Your task to perform on an android device: add a contact in the contacts app Image 0: 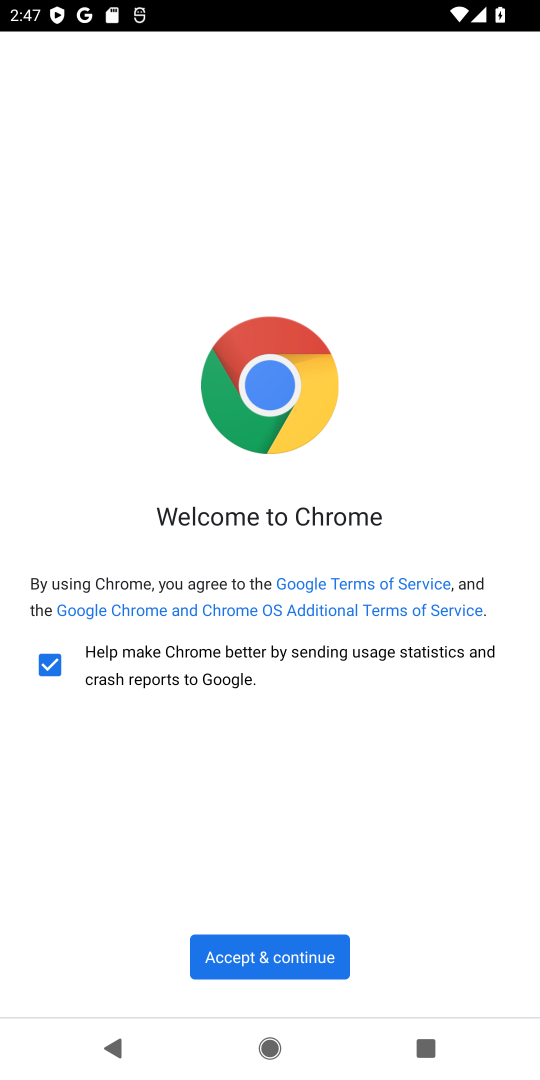
Step 0: press home button
Your task to perform on an android device: add a contact in the contacts app Image 1: 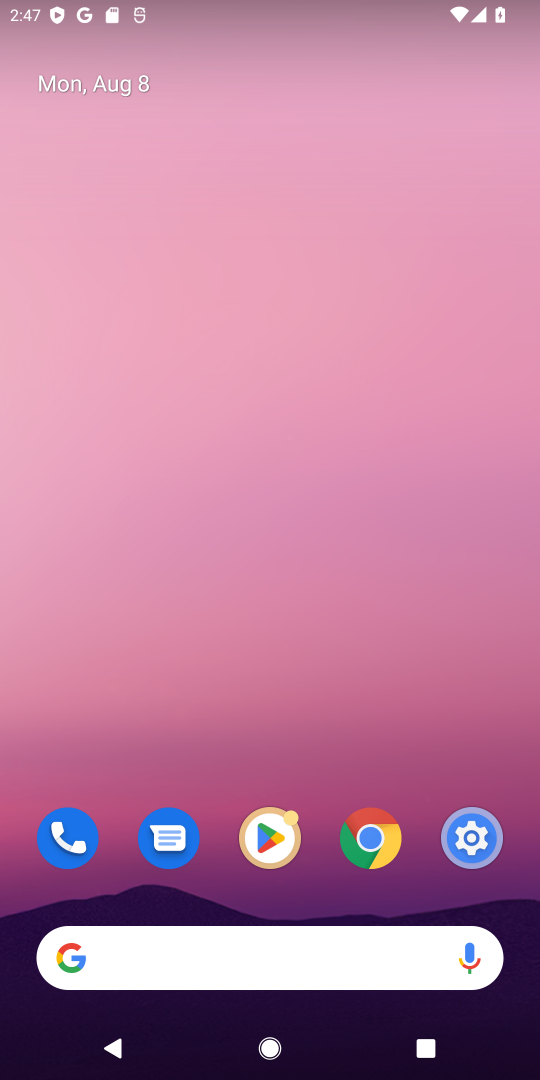
Step 1: drag from (370, 905) to (361, 95)
Your task to perform on an android device: add a contact in the contacts app Image 2: 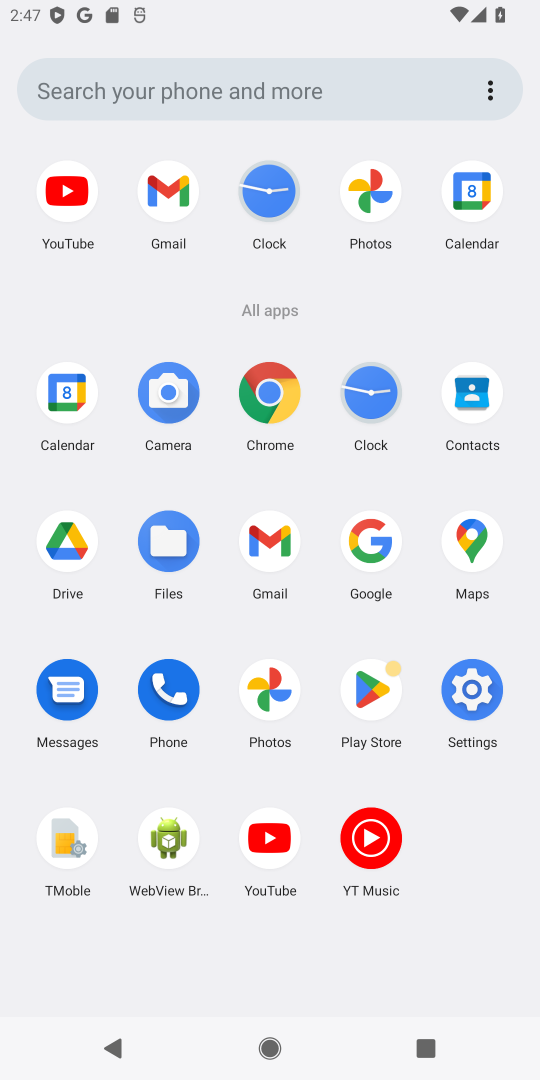
Step 2: click (464, 408)
Your task to perform on an android device: add a contact in the contacts app Image 3: 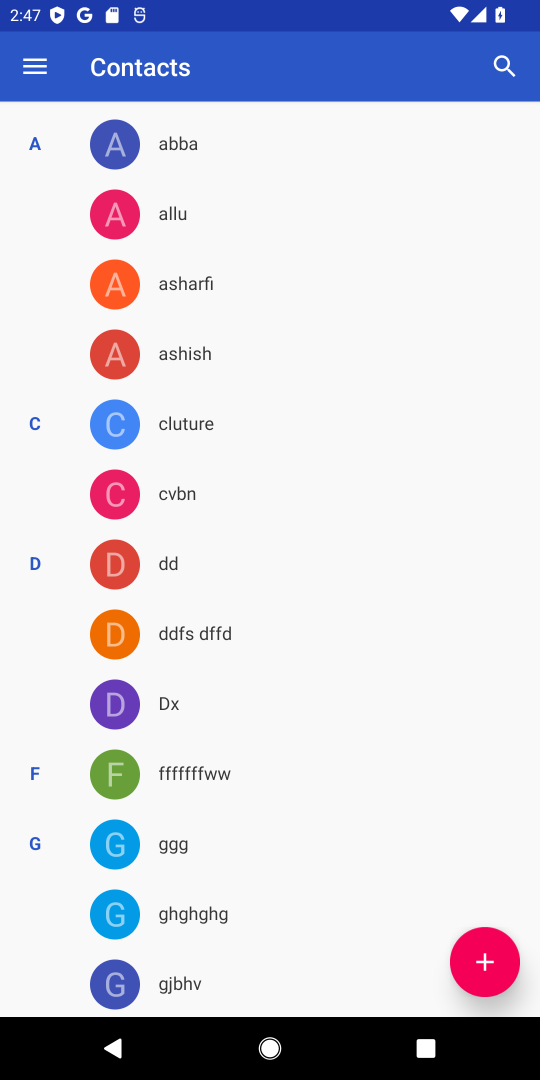
Step 3: click (478, 956)
Your task to perform on an android device: add a contact in the contacts app Image 4: 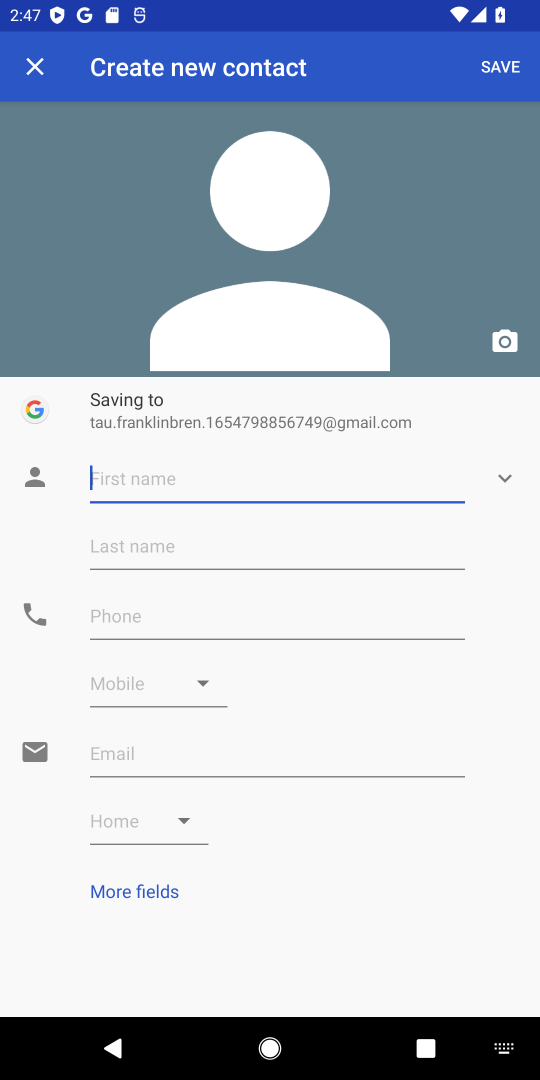
Step 4: click (215, 483)
Your task to perform on an android device: add a contact in the contacts app Image 5: 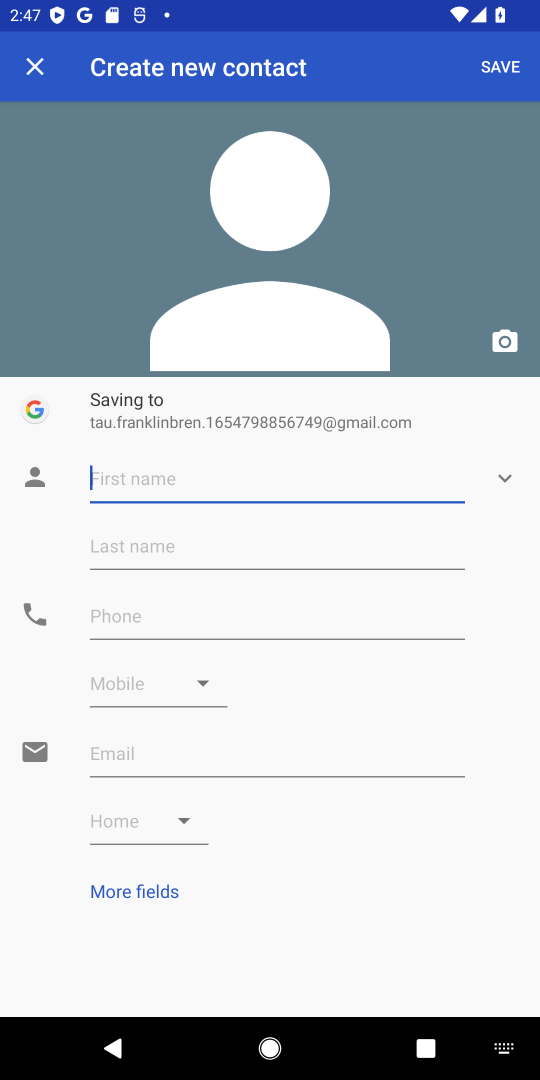
Step 5: type "gfff"
Your task to perform on an android device: add a contact in the contacts app Image 6: 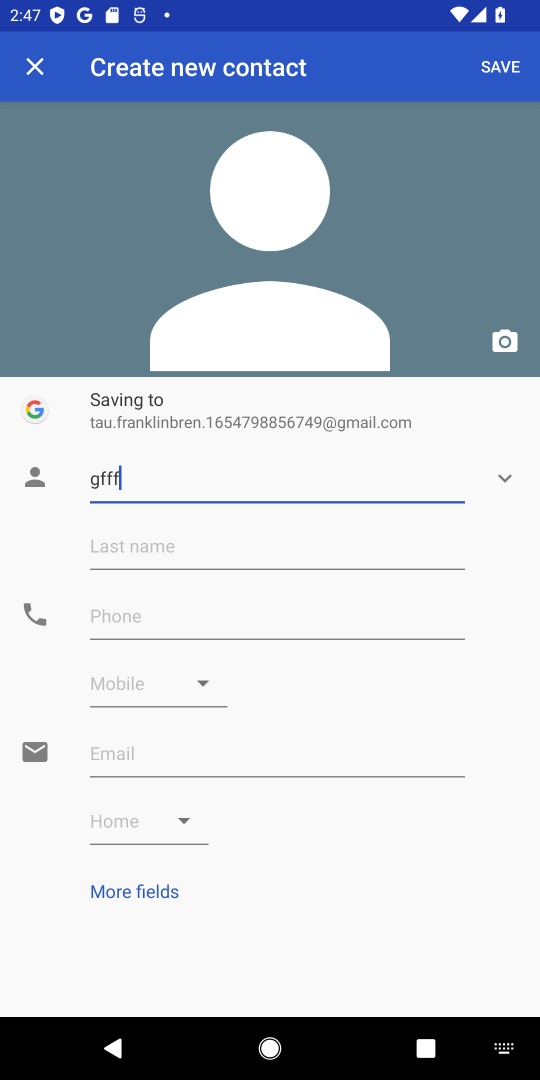
Step 6: type ""
Your task to perform on an android device: add a contact in the contacts app Image 7: 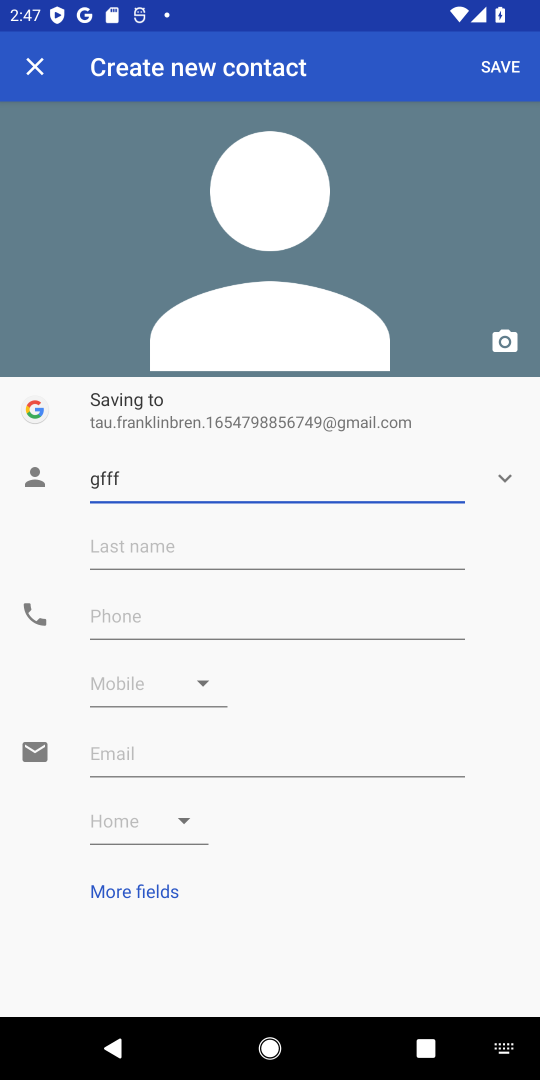
Step 7: click (236, 608)
Your task to perform on an android device: add a contact in the contacts app Image 8: 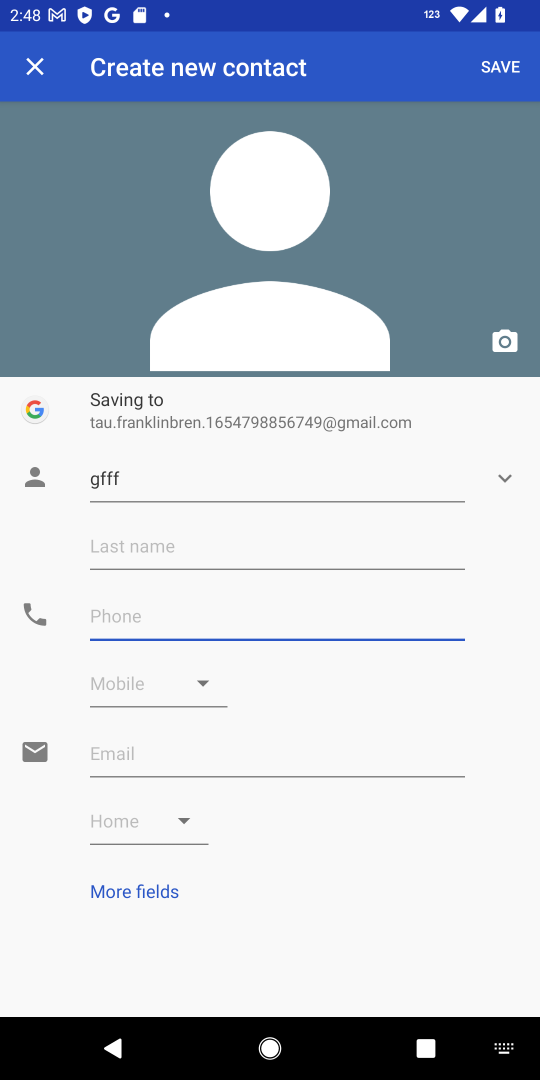
Step 8: type "566443222"
Your task to perform on an android device: add a contact in the contacts app Image 9: 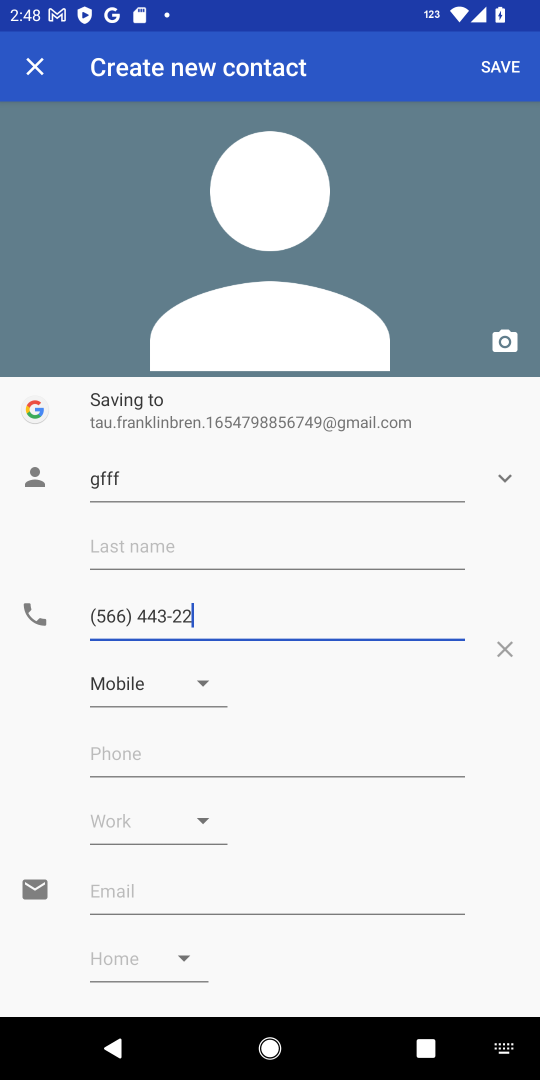
Step 9: type ""
Your task to perform on an android device: add a contact in the contacts app Image 10: 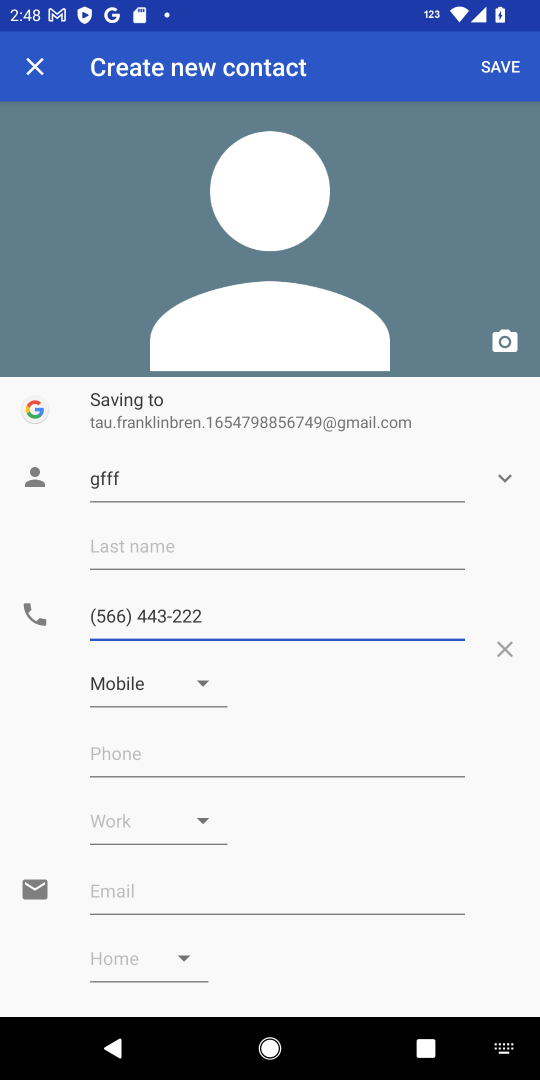
Step 10: click (508, 58)
Your task to perform on an android device: add a contact in the contacts app Image 11: 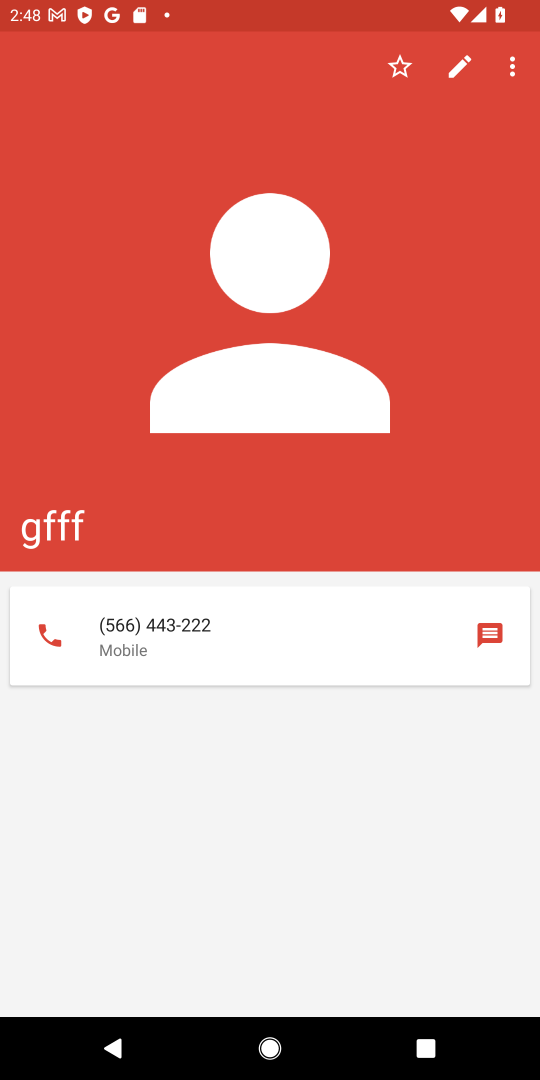
Step 11: task complete